Your task to perform on an android device: delete a single message in the gmail app Image 0: 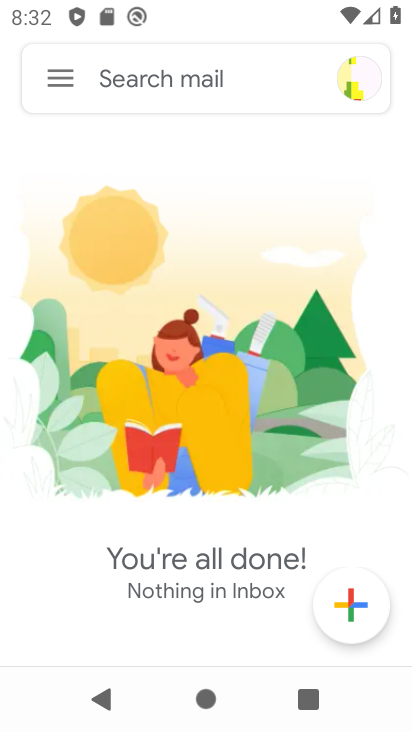
Step 0: press home button
Your task to perform on an android device: delete a single message in the gmail app Image 1: 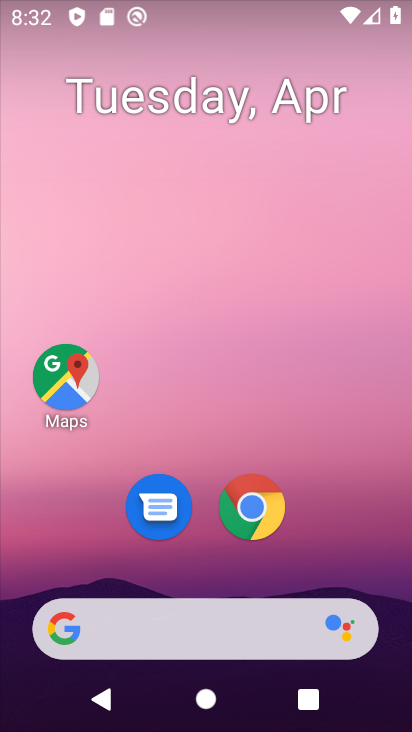
Step 1: drag from (201, 449) to (201, 205)
Your task to perform on an android device: delete a single message in the gmail app Image 2: 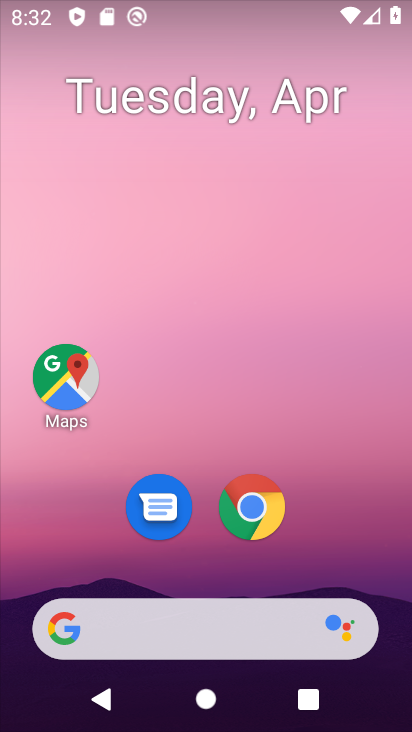
Step 2: drag from (216, 559) to (230, 235)
Your task to perform on an android device: delete a single message in the gmail app Image 3: 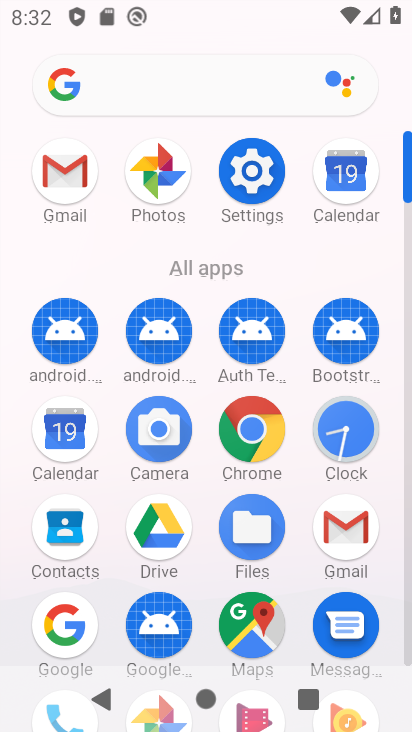
Step 3: click (76, 188)
Your task to perform on an android device: delete a single message in the gmail app Image 4: 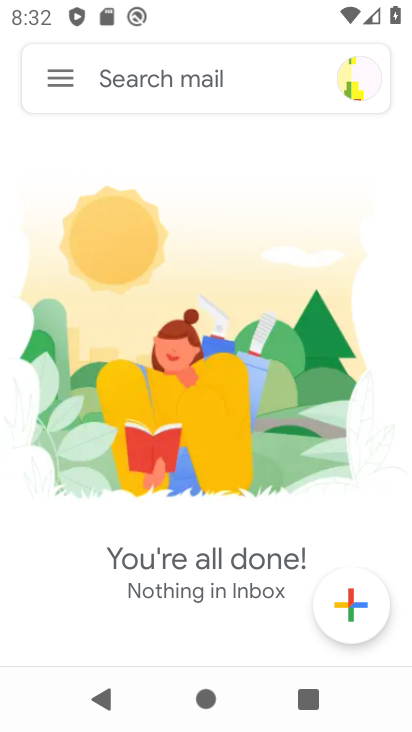
Step 4: click (66, 81)
Your task to perform on an android device: delete a single message in the gmail app Image 5: 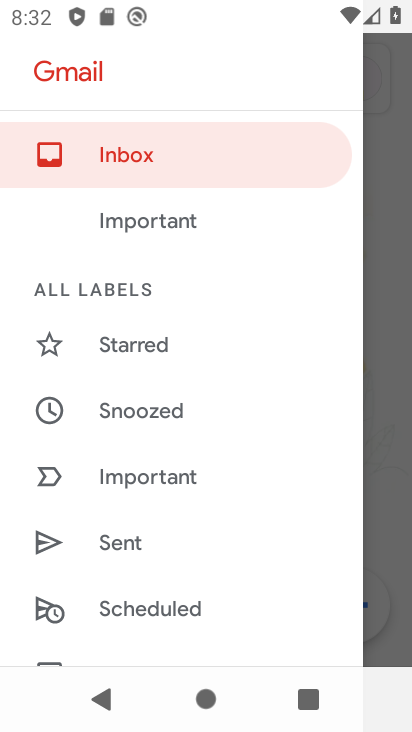
Step 5: drag from (177, 580) to (203, 258)
Your task to perform on an android device: delete a single message in the gmail app Image 6: 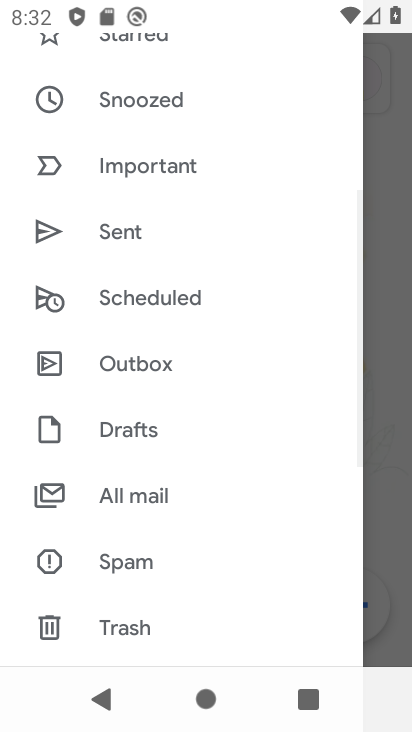
Step 6: click (191, 491)
Your task to perform on an android device: delete a single message in the gmail app Image 7: 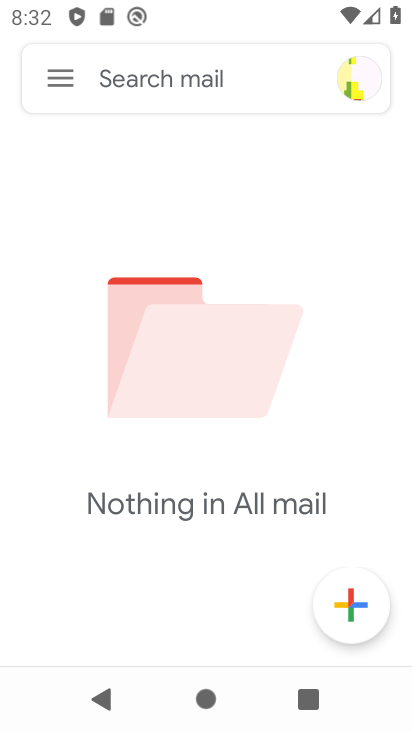
Step 7: task complete